Your task to perform on an android device: Open Android settings Image 0: 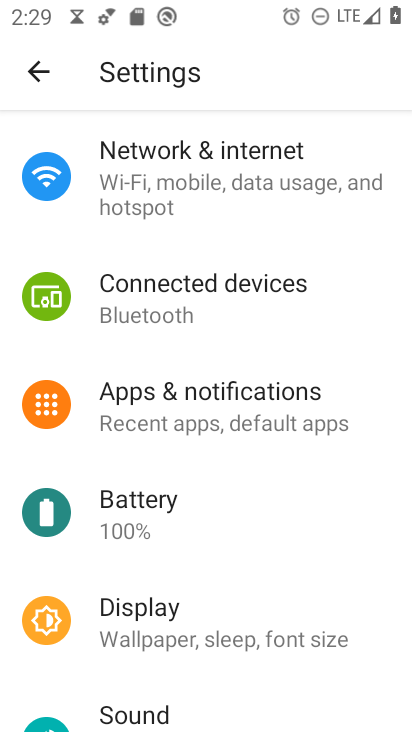
Step 0: press home button
Your task to perform on an android device: Open Android settings Image 1: 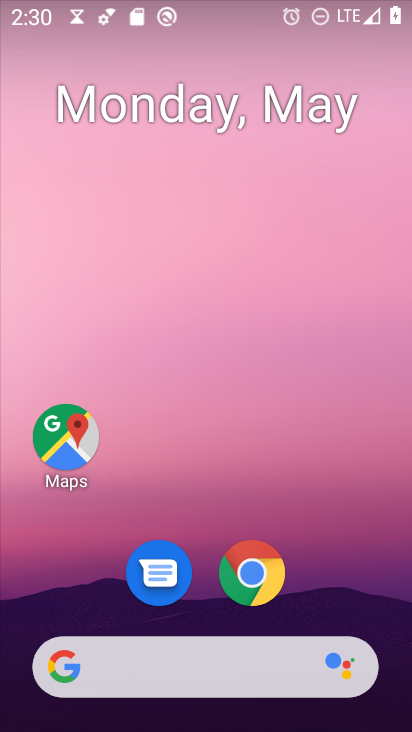
Step 1: drag from (244, 642) to (328, 151)
Your task to perform on an android device: Open Android settings Image 2: 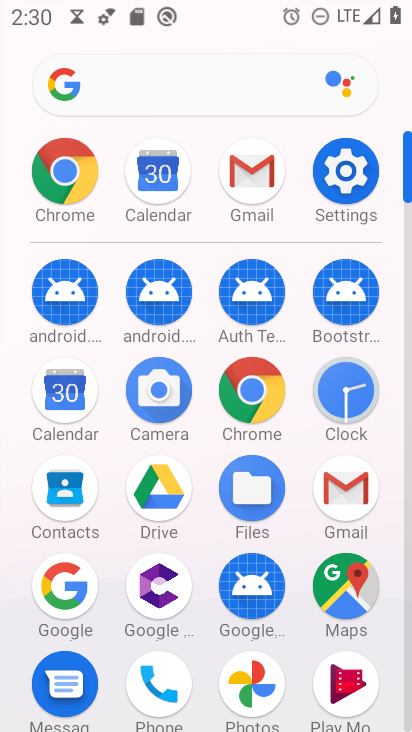
Step 2: click (356, 181)
Your task to perform on an android device: Open Android settings Image 3: 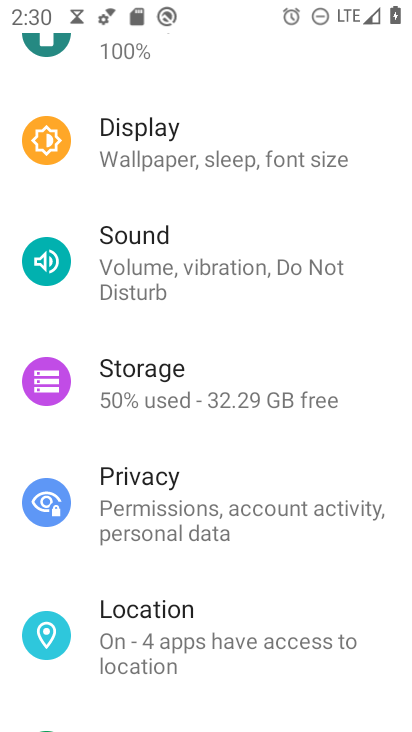
Step 3: drag from (236, 615) to (293, 36)
Your task to perform on an android device: Open Android settings Image 4: 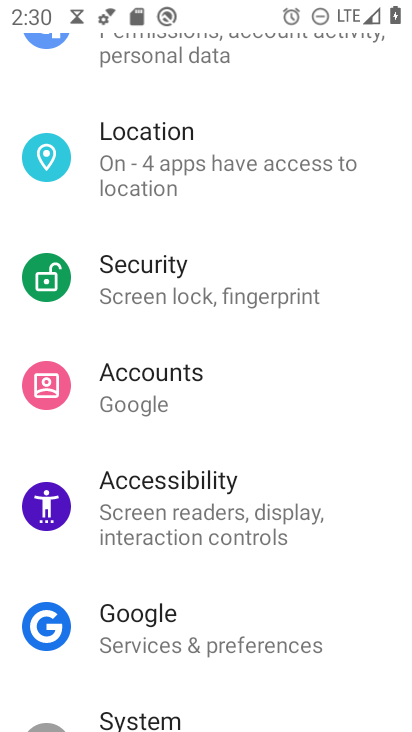
Step 4: drag from (192, 699) to (255, 287)
Your task to perform on an android device: Open Android settings Image 5: 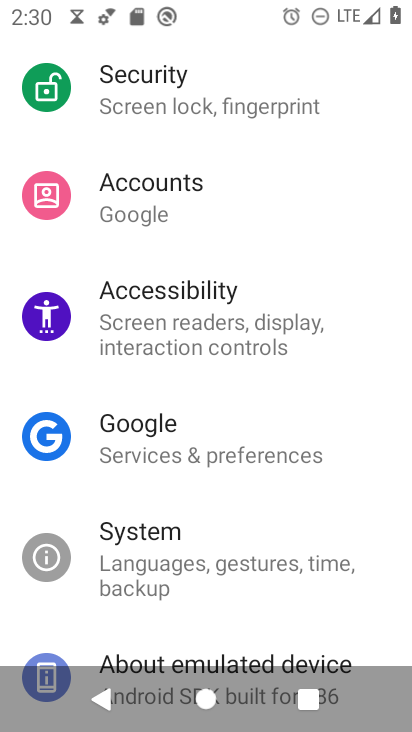
Step 5: click (268, 654)
Your task to perform on an android device: Open Android settings Image 6: 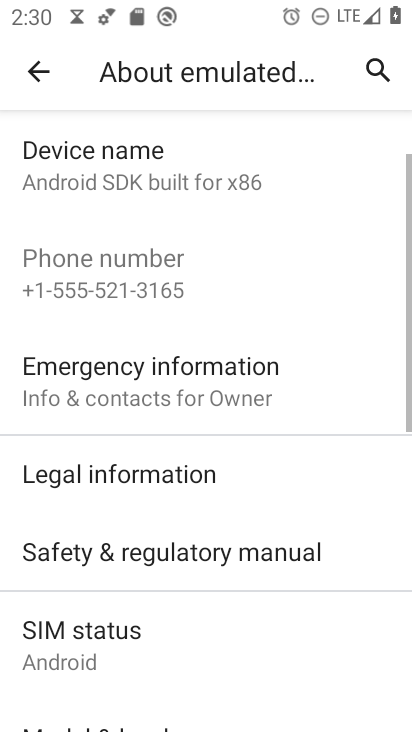
Step 6: drag from (256, 622) to (314, 123)
Your task to perform on an android device: Open Android settings Image 7: 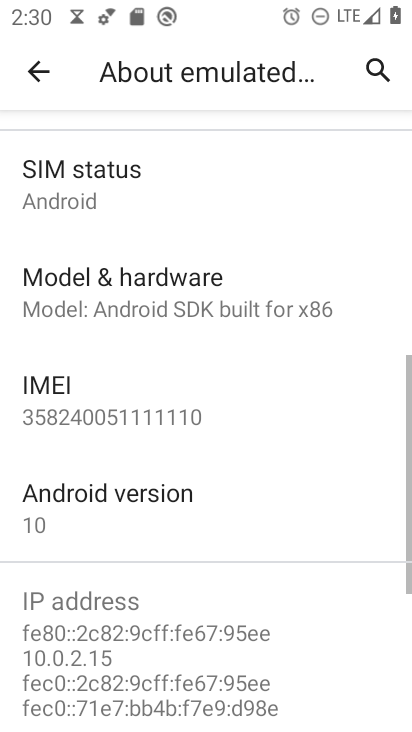
Step 7: click (181, 513)
Your task to perform on an android device: Open Android settings Image 8: 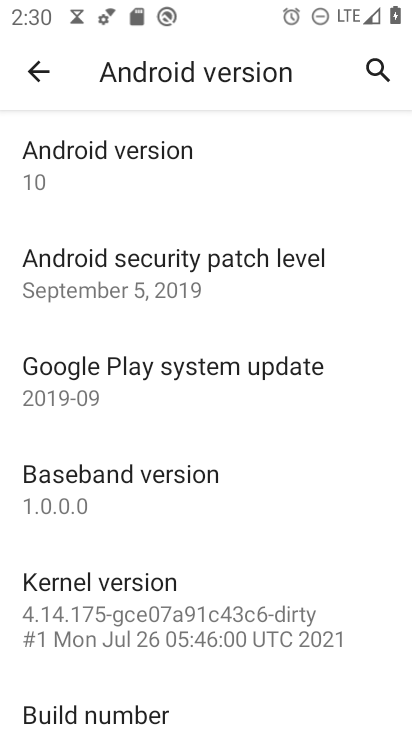
Step 8: task complete